Your task to perform on an android device: Open Maps and search for coffee Image 0: 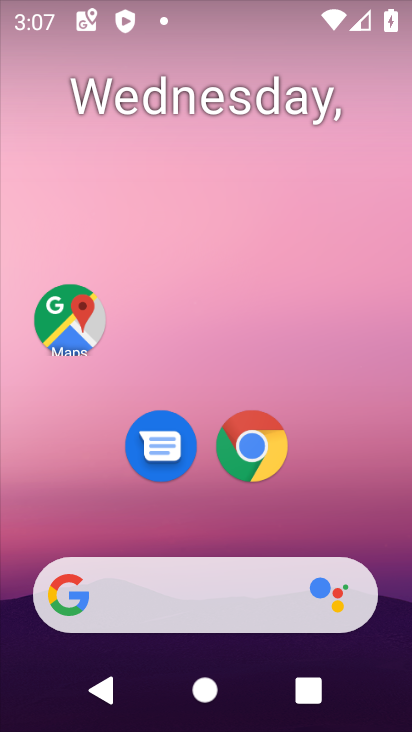
Step 0: click (77, 320)
Your task to perform on an android device: Open Maps and search for coffee Image 1: 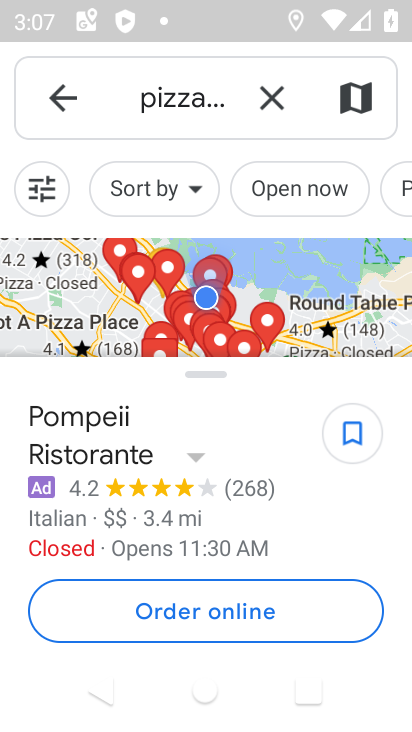
Step 1: click (269, 90)
Your task to perform on an android device: Open Maps and search for coffee Image 2: 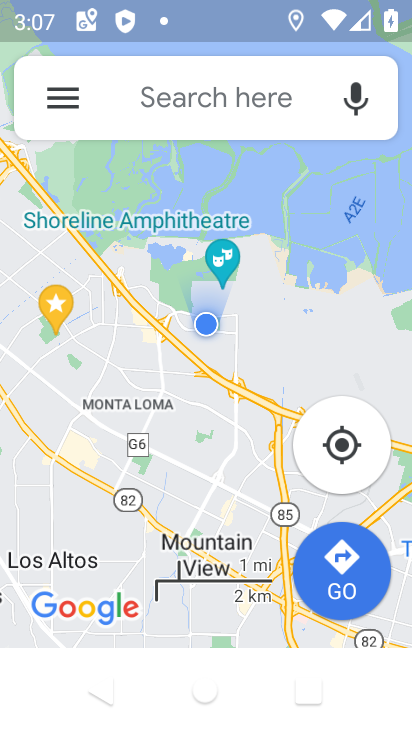
Step 2: click (185, 98)
Your task to perform on an android device: Open Maps and search for coffee Image 3: 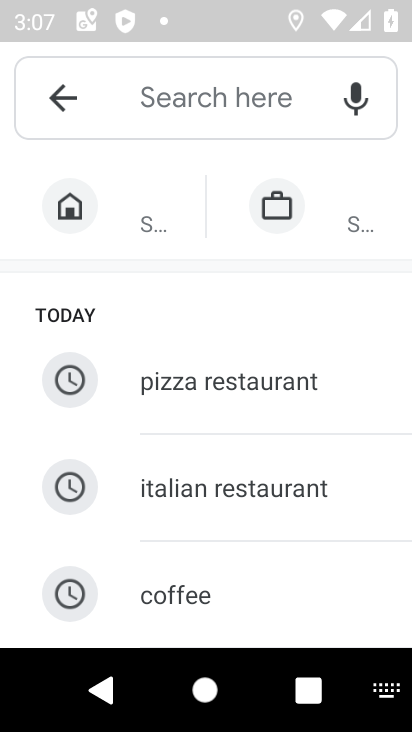
Step 3: click (202, 594)
Your task to perform on an android device: Open Maps and search for coffee Image 4: 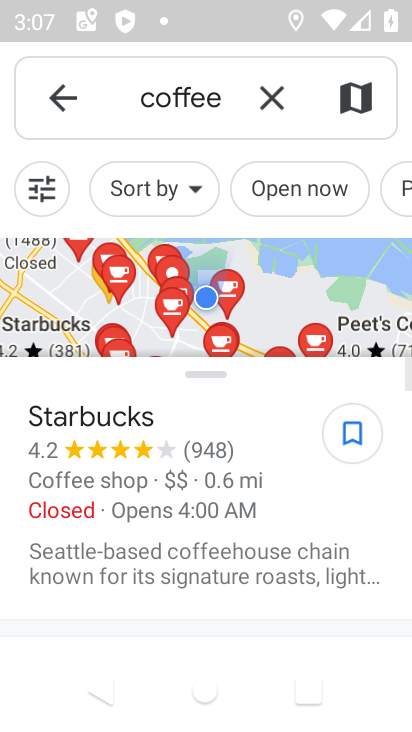
Step 4: task complete